Your task to perform on an android device: change alarm snooze length Image 0: 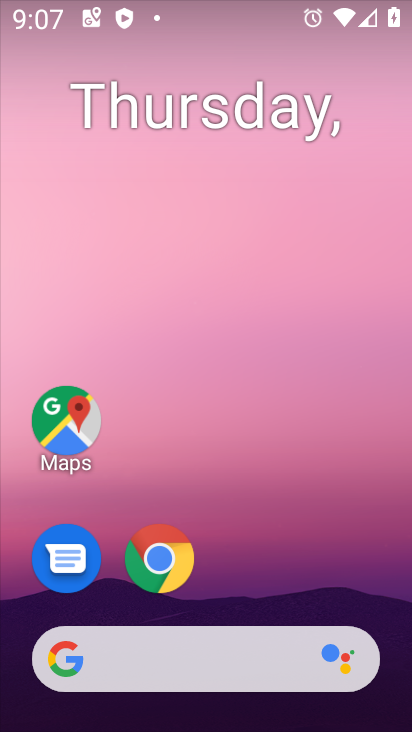
Step 0: drag from (382, 568) to (388, 136)
Your task to perform on an android device: change alarm snooze length Image 1: 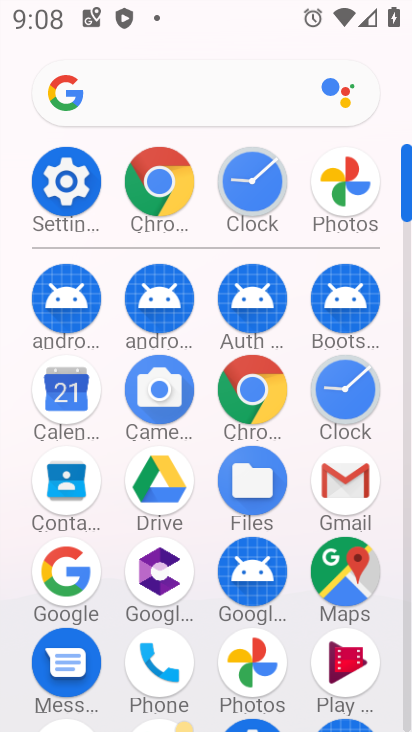
Step 1: click (351, 384)
Your task to perform on an android device: change alarm snooze length Image 2: 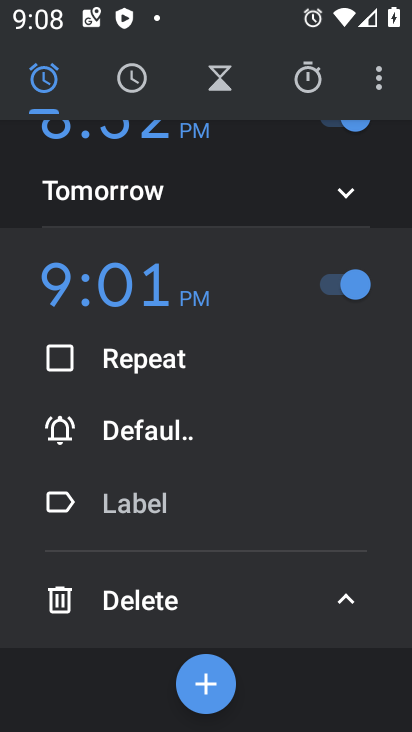
Step 2: click (375, 88)
Your task to perform on an android device: change alarm snooze length Image 3: 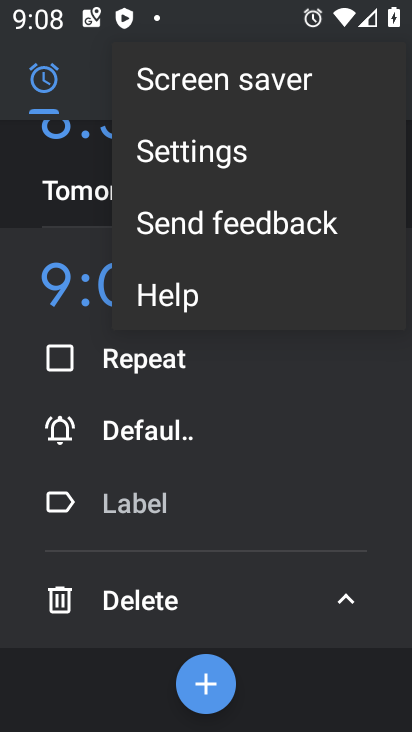
Step 3: click (279, 155)
Your task to perform on an android device: change alarm snooze length Image 4: 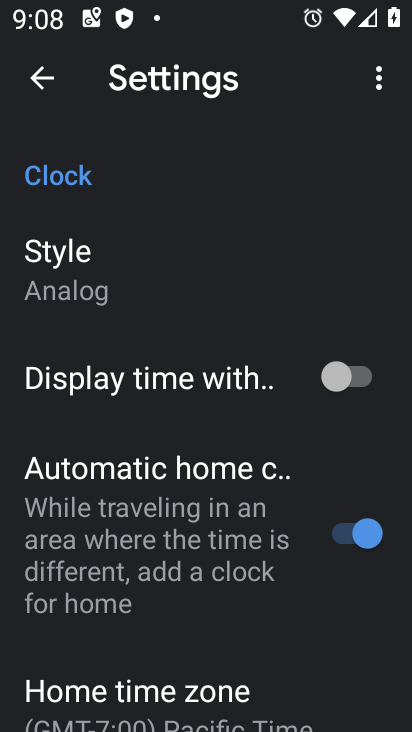
Step 4: drag from (289, 600) to (302, 399)
Your task to perform on an android device: change alarm snooze length Image 5: 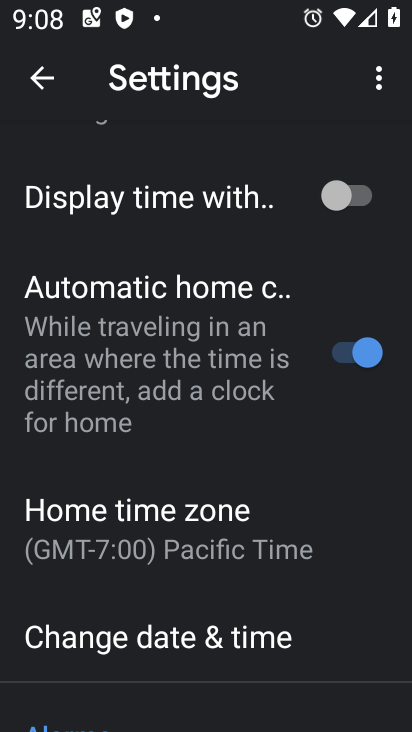
Step 5: drag from (302, 566) to (312, 467)
Your task to perform on an android device: change alarm snooze length Image 6: 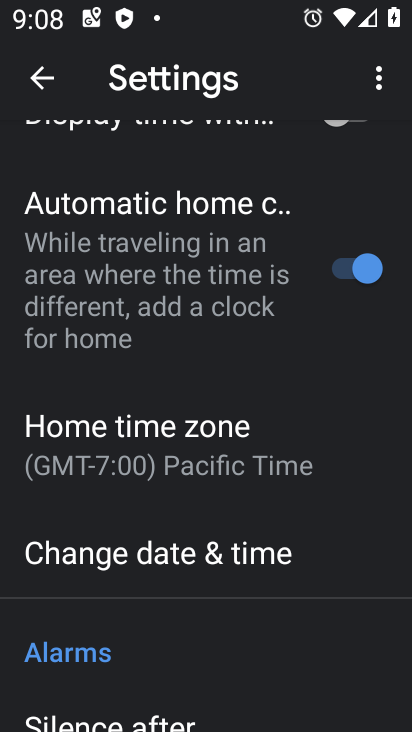
Step 6: drag from (295, 624) to (298, 494)
Your task to perform on an android device: change alarm snooze length Image 7: 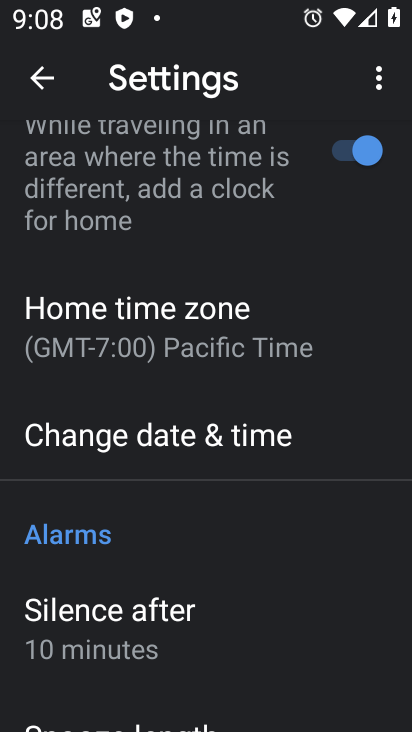
Step 7: drag from (285, 575) to (290, 492)
Your task to perform on an android device: change alarm snooze length Image 8: 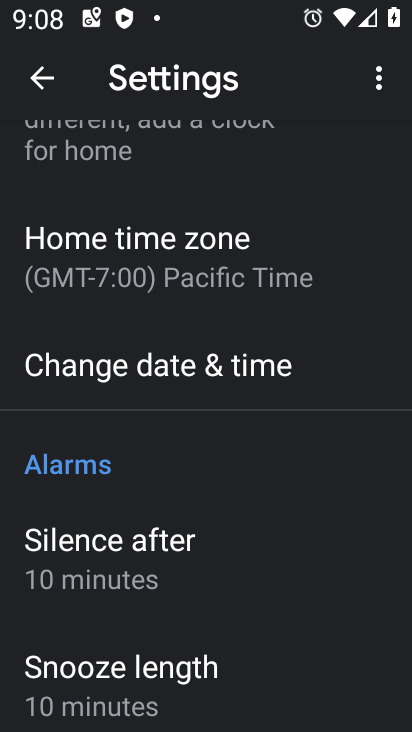
Step 8: drag from (299, 585) to (304, 501)
Your task to perform on an android device: change alarm snooze length Image 9: 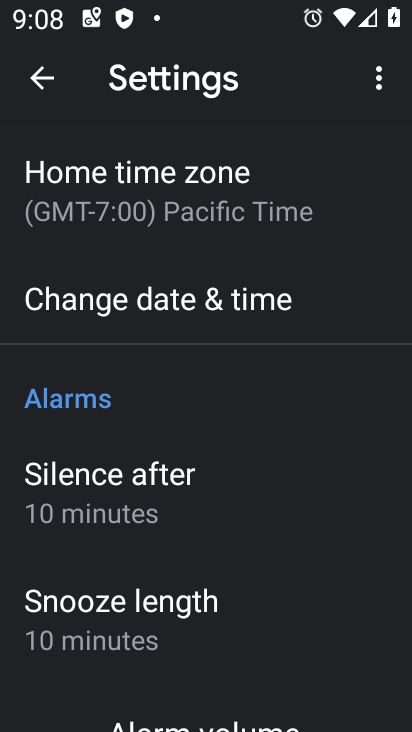
Step 9: drag from (294, 623) to (310, 493)
Your task to perform on an android device: change alarm snooze length Image 10: 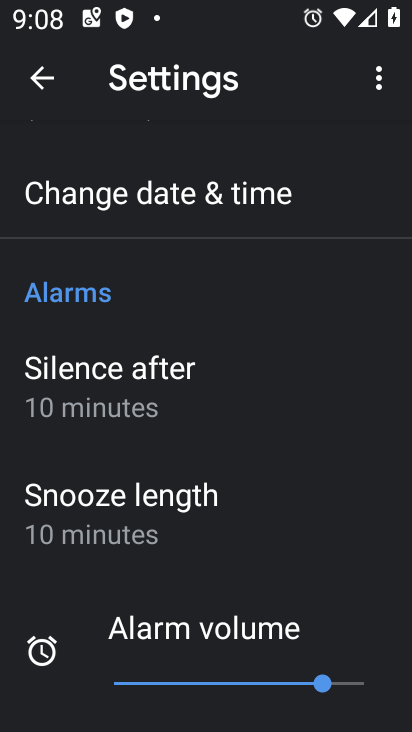
Step 10: click (223, 517)
Your task to perform on an android device: change alarm snooze length Image 11: 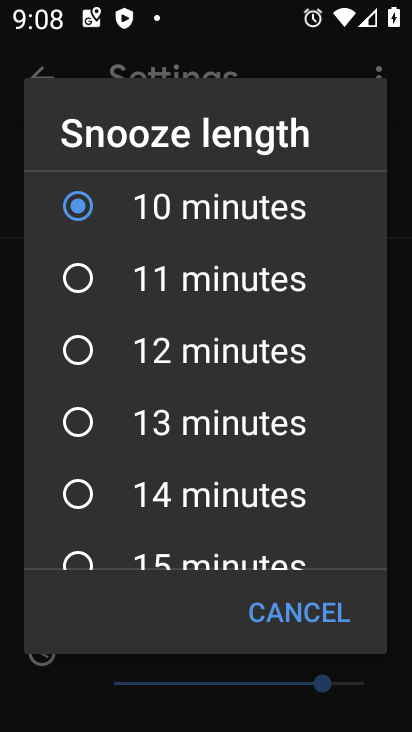
Step 11: click (265, 496)
Your task to perform on an android device: change alarm snooze length Image 12: 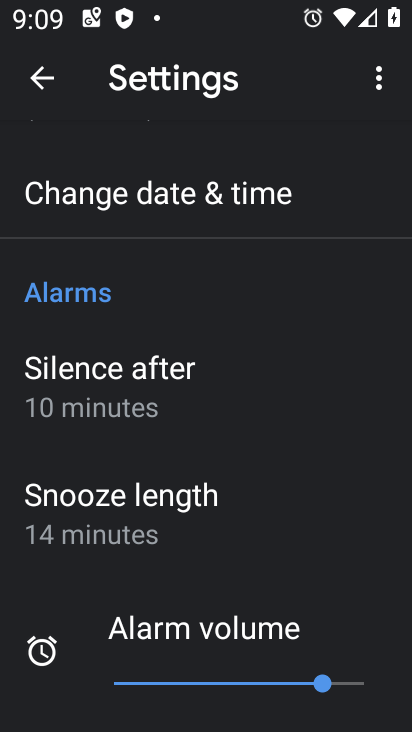
Step 12: task complete